Your task to perform on an android device: open a new tab in the chrome app Image 0: 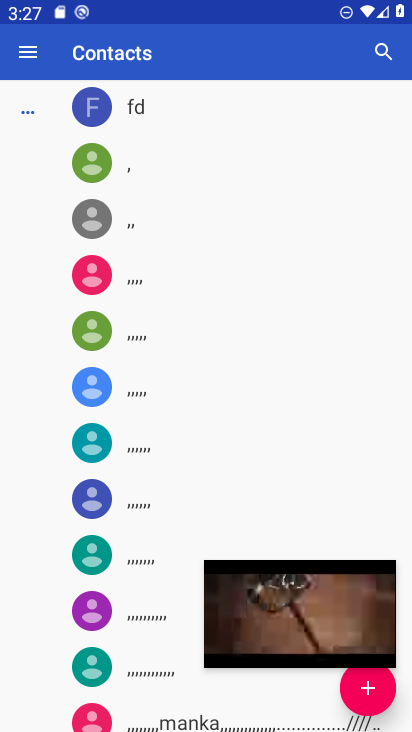
Step 0: drag from (316, 602) to (225, 730)
Your task to perform on an android device: open a new tab in the chrome app Image 1: 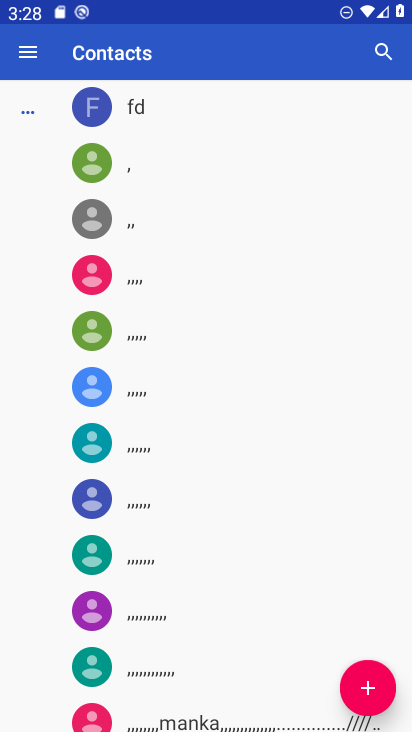
Step 1: press home button
Your task to perform on an android device: open a new tab in the chrome app Image 2: 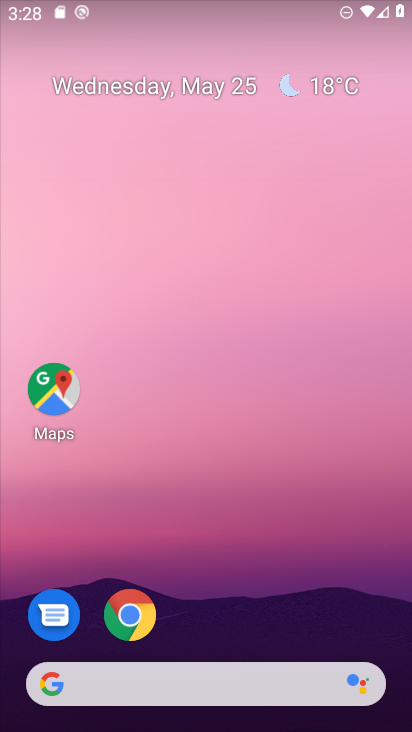
Step 2: click (139, 617)
Your task to perform on an android device: open a new tab in the chrome app Image 3: 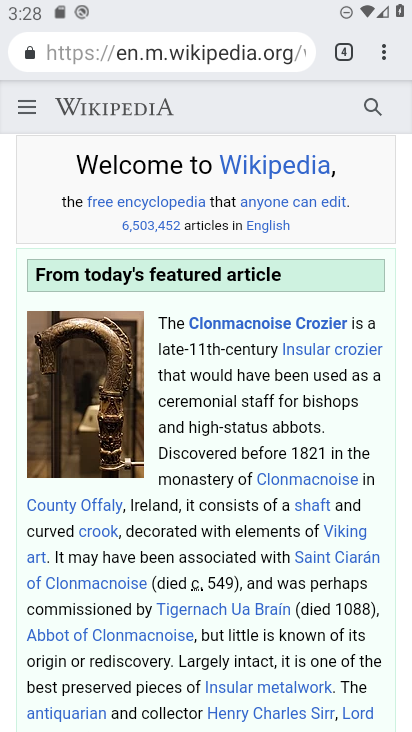
Step 3: click (379, 44)
Your task to perform on an android device: open a new tab in the chrome app Image 4: 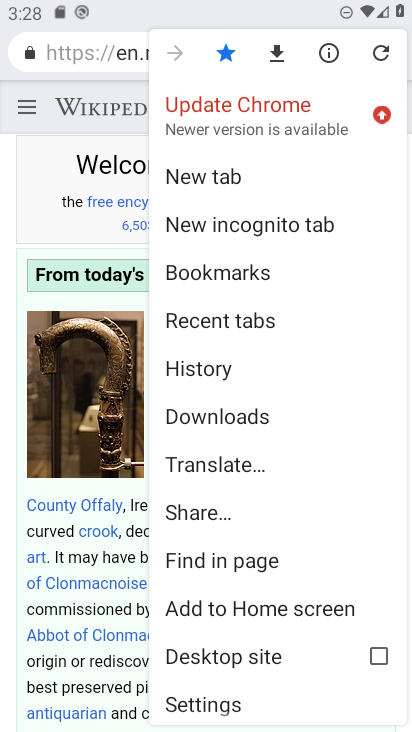
Step 4: click (263, 168)
Your task to perform on an android device: open a new tab in the chrome app Image 5: 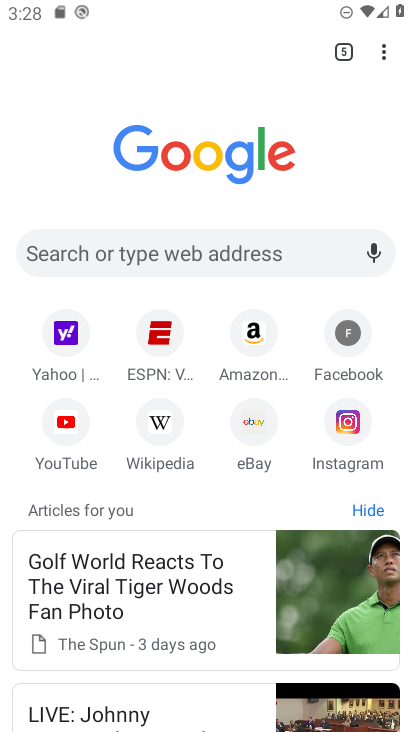
Step 5: task complete